Your task to perform on an android device: Open CNN.com Image 0: 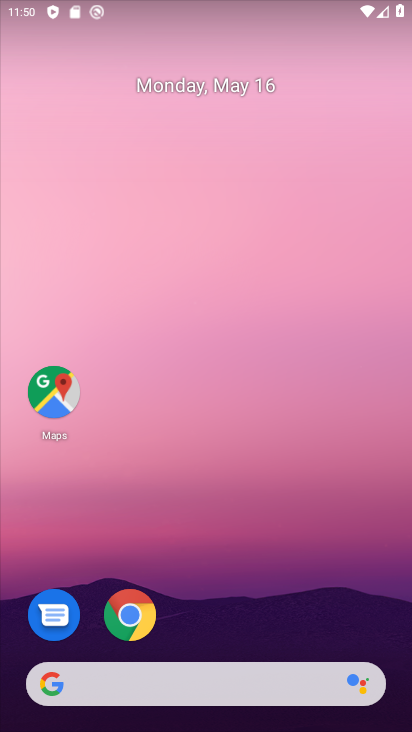
Step 0: click (132, 609)
Your task to perform on an android device: Open CNN.com Image 1: 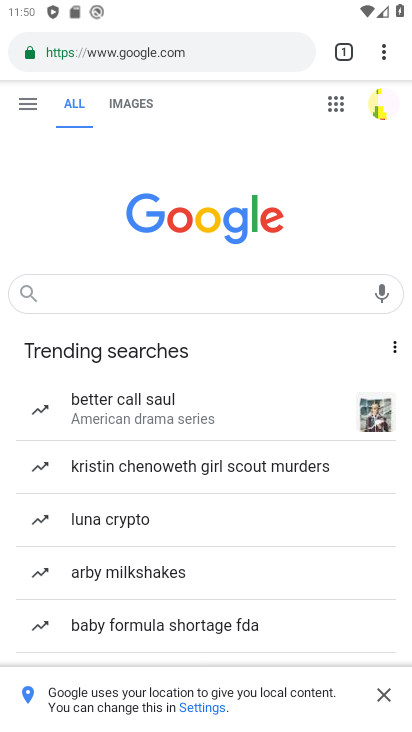
Step 1: click (197, 55)
Your task to perform on an android device: Open CNN.com Image 2: 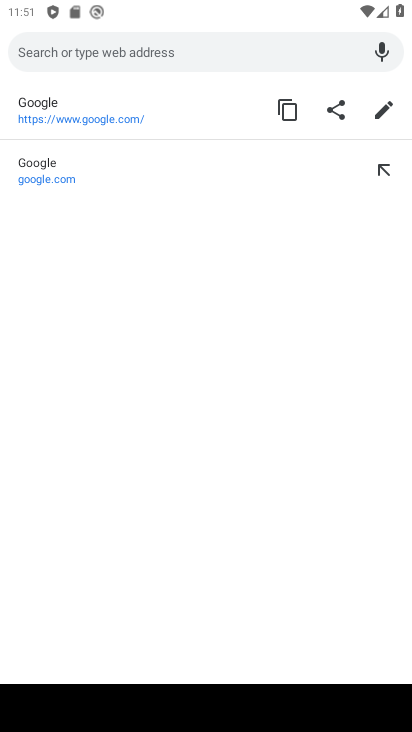
Step 2: type "cnn.com"
Your task to perform on an android device: Open CNN.com Image 3: 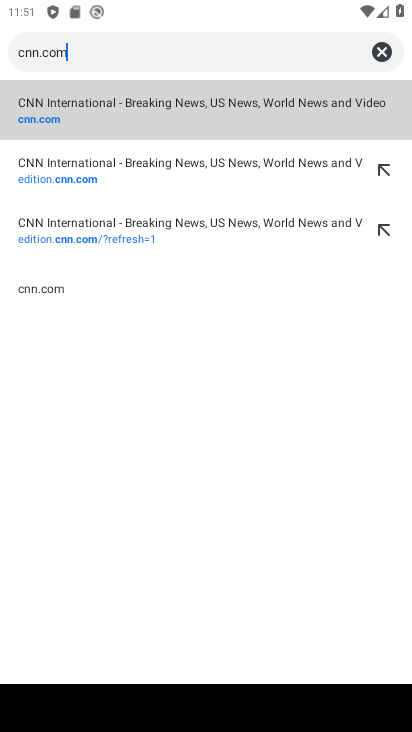
Step 3: click (88, 127)
Your task to perform on an android device: Open CNN.com Image 4: 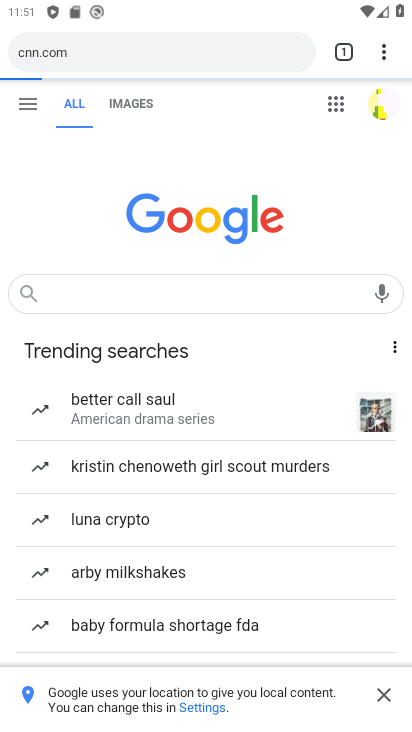
Step 4: task complete